Your task to perform on an android device: turn on improve location accuracy Image 0: 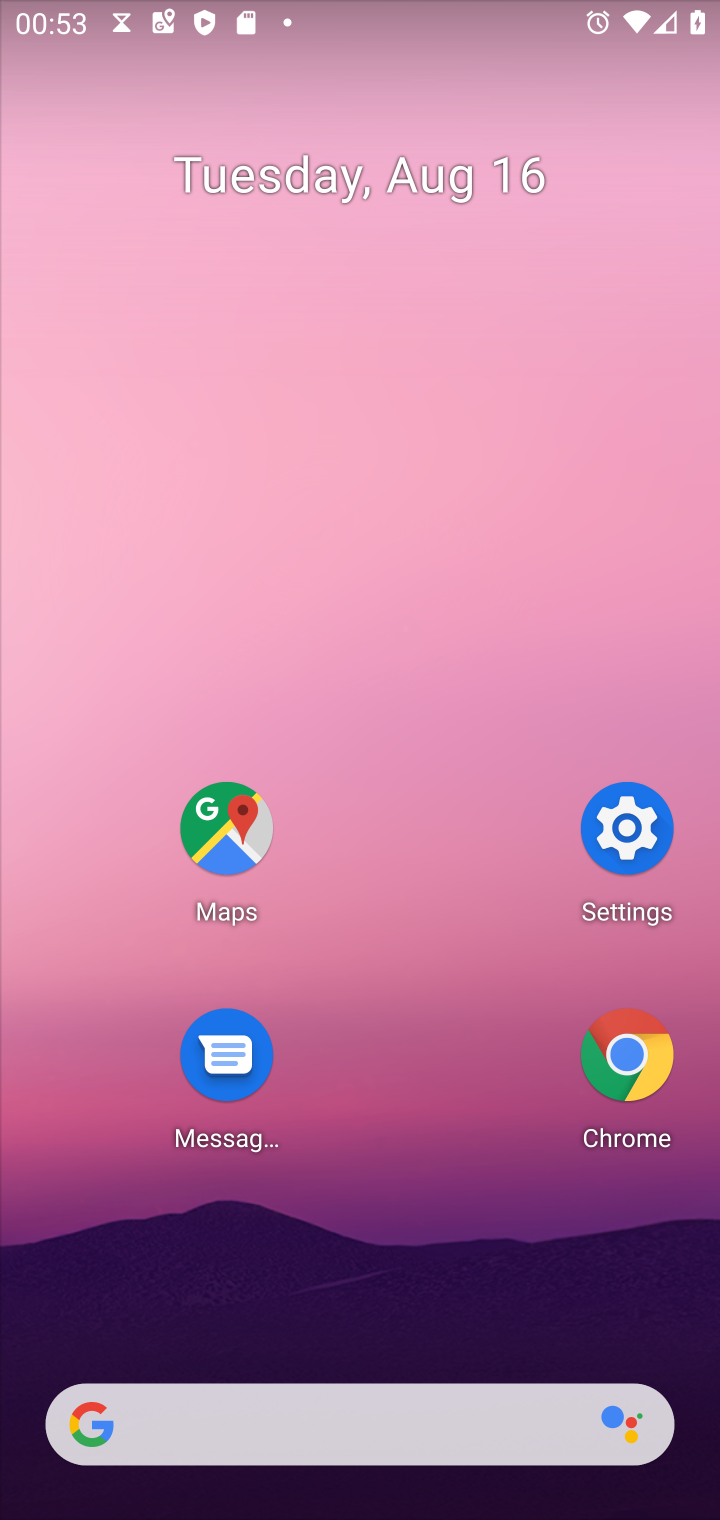
Step 0: click (630, 809)
Your task to perform on an android device: turn on improve location accuracy Image 1: 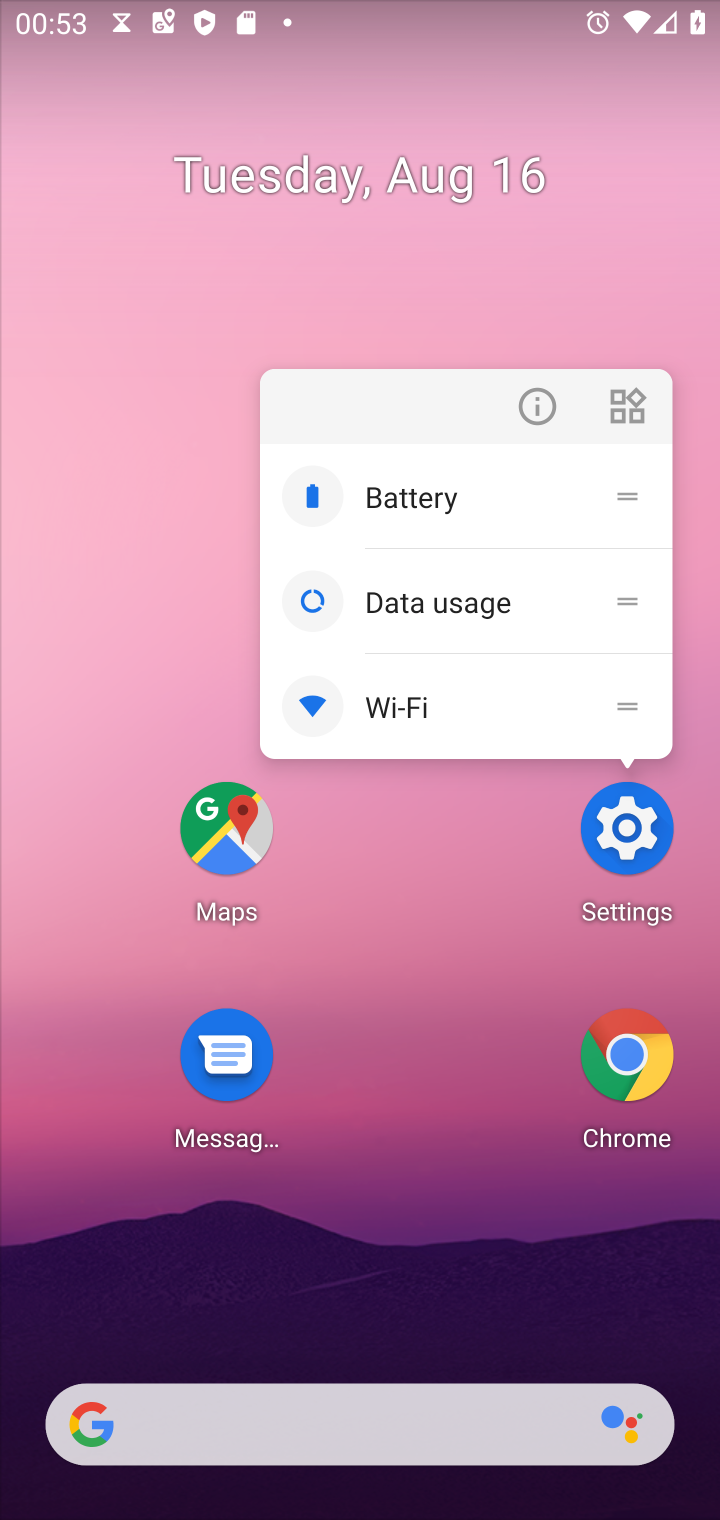
Step 1: click (626, 824)
Your task to perform on an android device: turn on improve location accuracy Image 2: 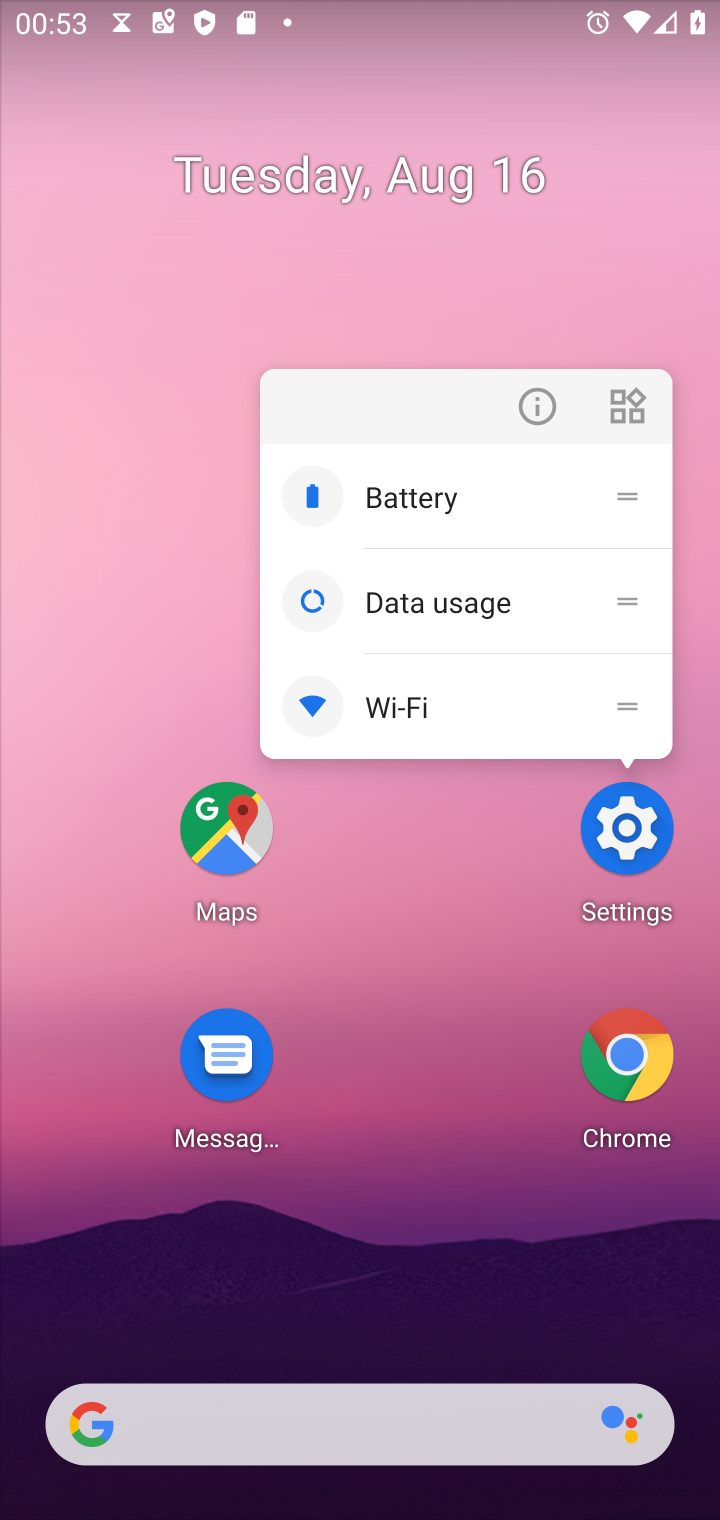
Step 2: click (624, 824)
Your task to perform on an android device: turn on improve location accuracy Image 3: 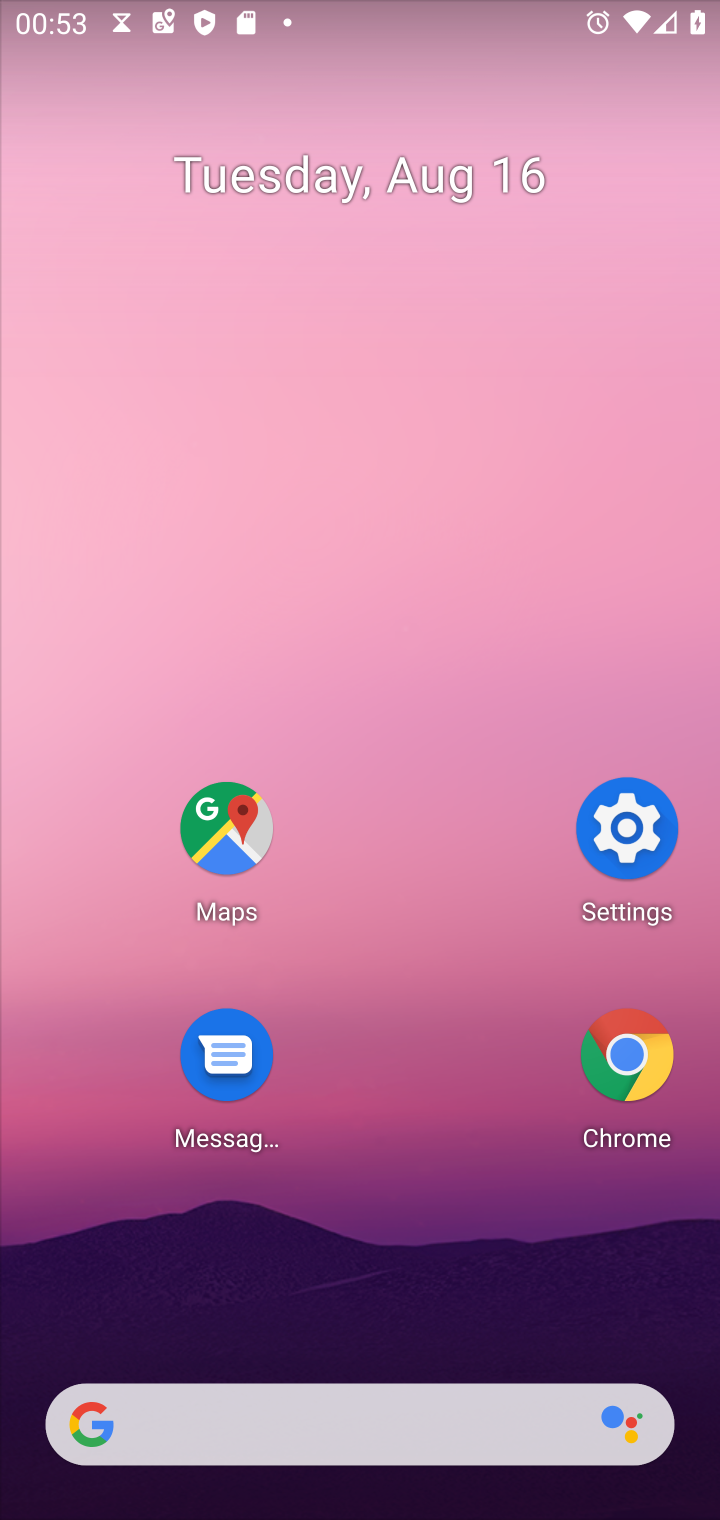
Step 3: click (621, 833)
Your task to perform on an android device: turn on improve location accuracy Image 4: 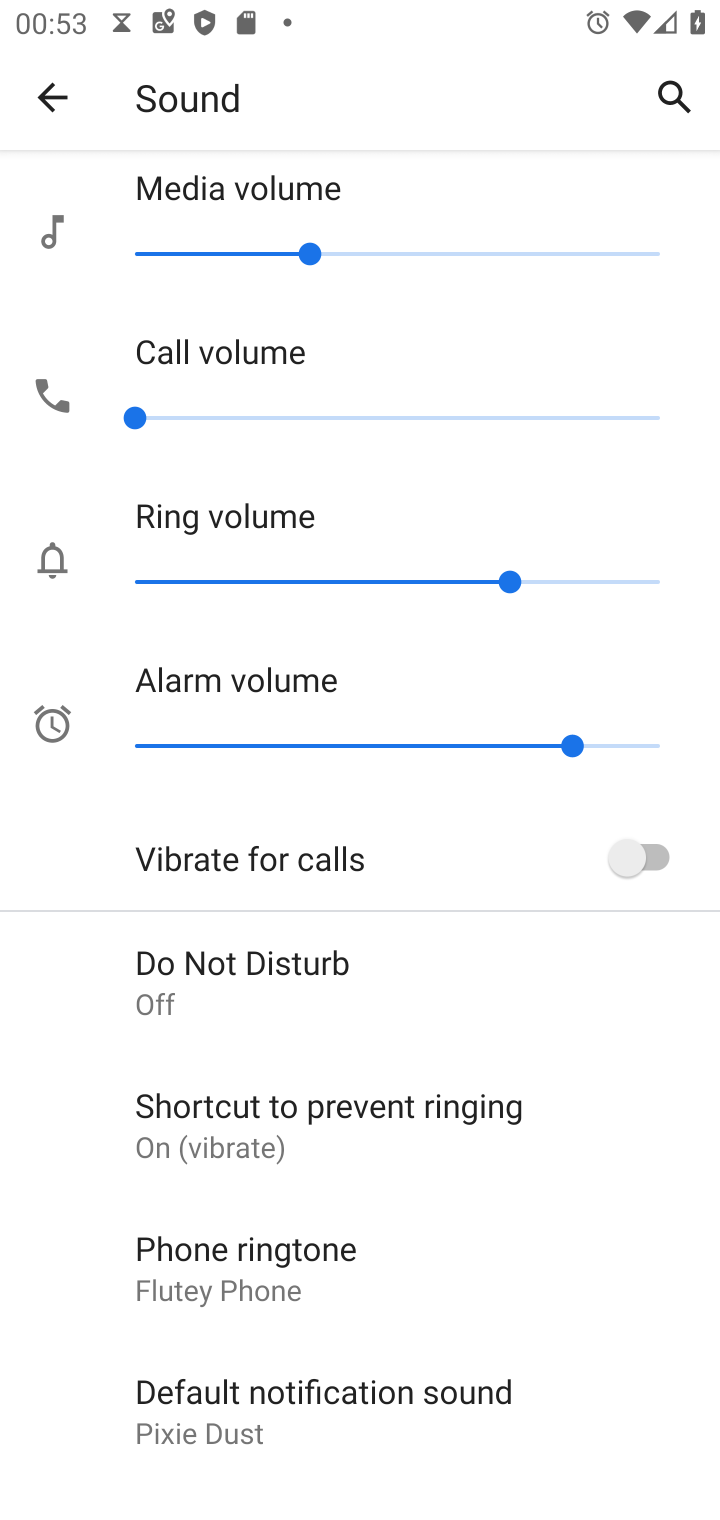
Step 4: click (48, 81)
Your task to perform on an android device: turn on improve location accuracy Image 5: 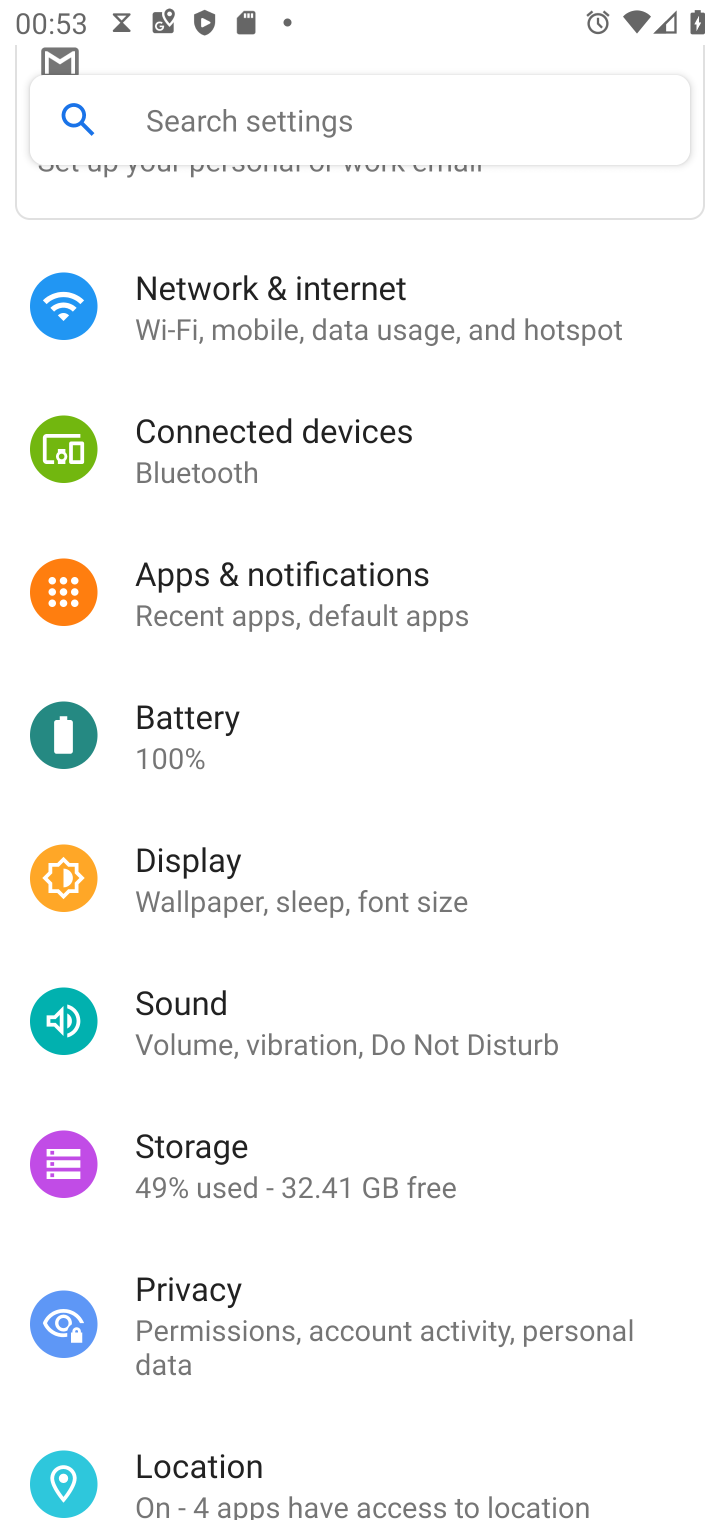
Step 5: drag from (303, 1359) to (541, 249)
Your task to perform on an android device: turn on improve location accuracy Image 6: 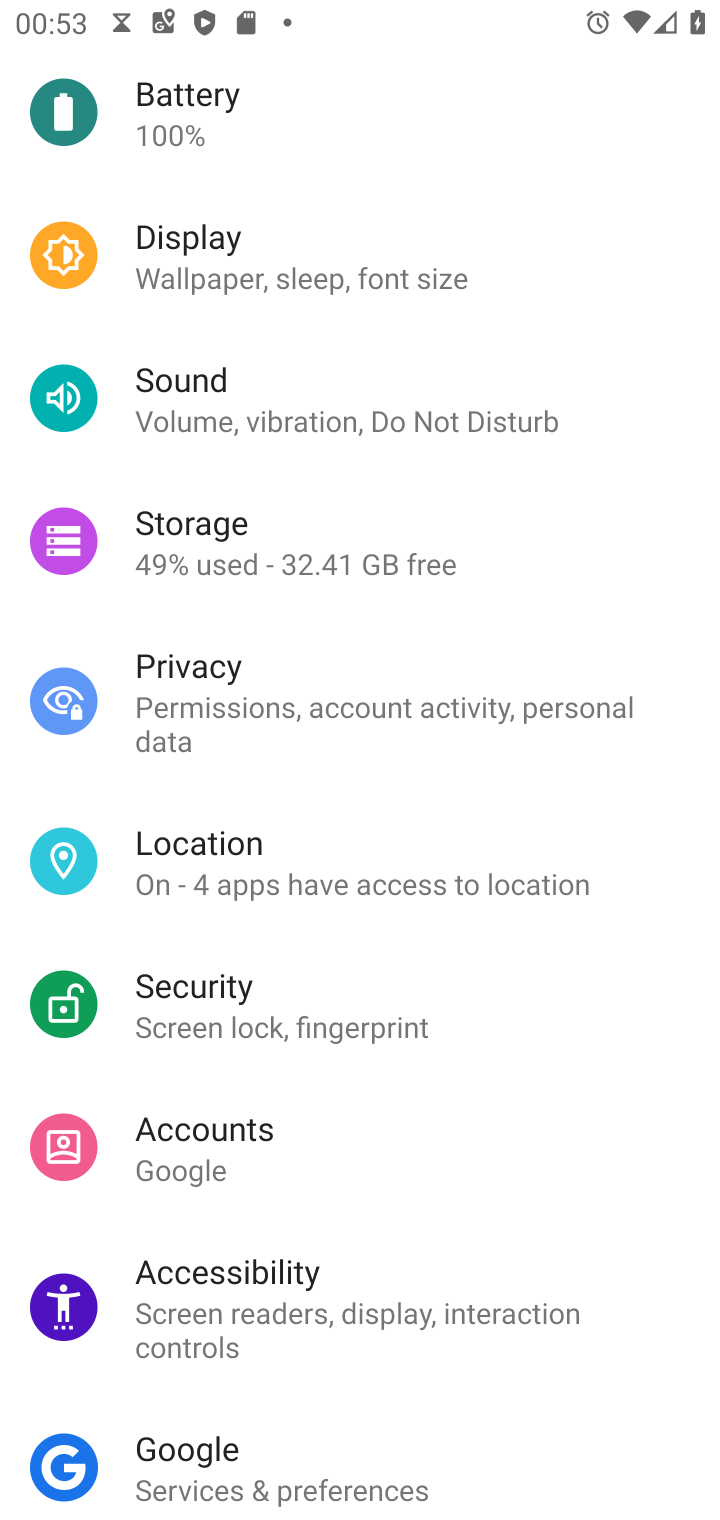
Step 6: click (247, 865)
Your task to perform on an android device: turn on improve location accuracy Image 7: 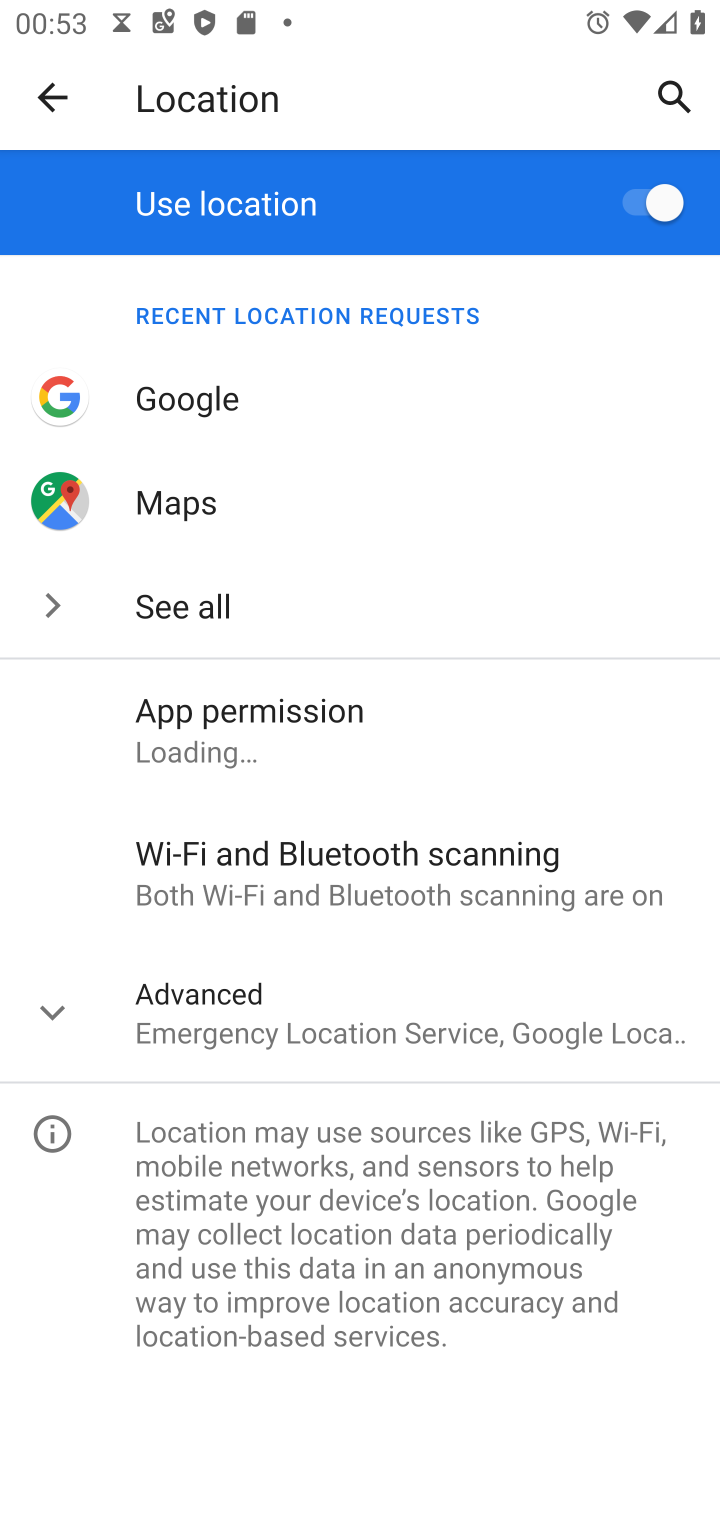
Step 7: click (220, 984)
Your task to perform on an android device: turn on improve location accuracy Image 8: 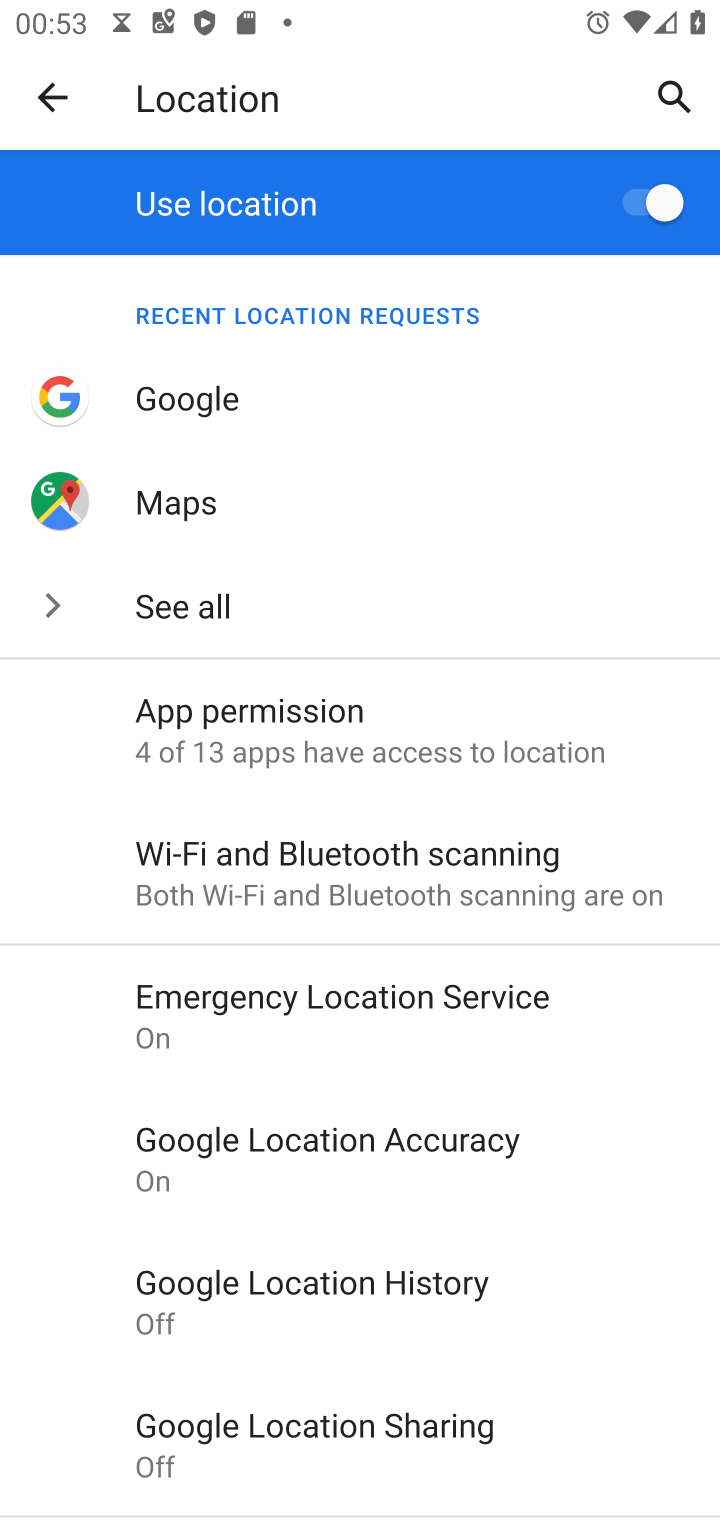
Step 8: drag from (378, 1066) to (518, 399)
Your task to perform on an android device: turn on improve location accuracy Image 9: 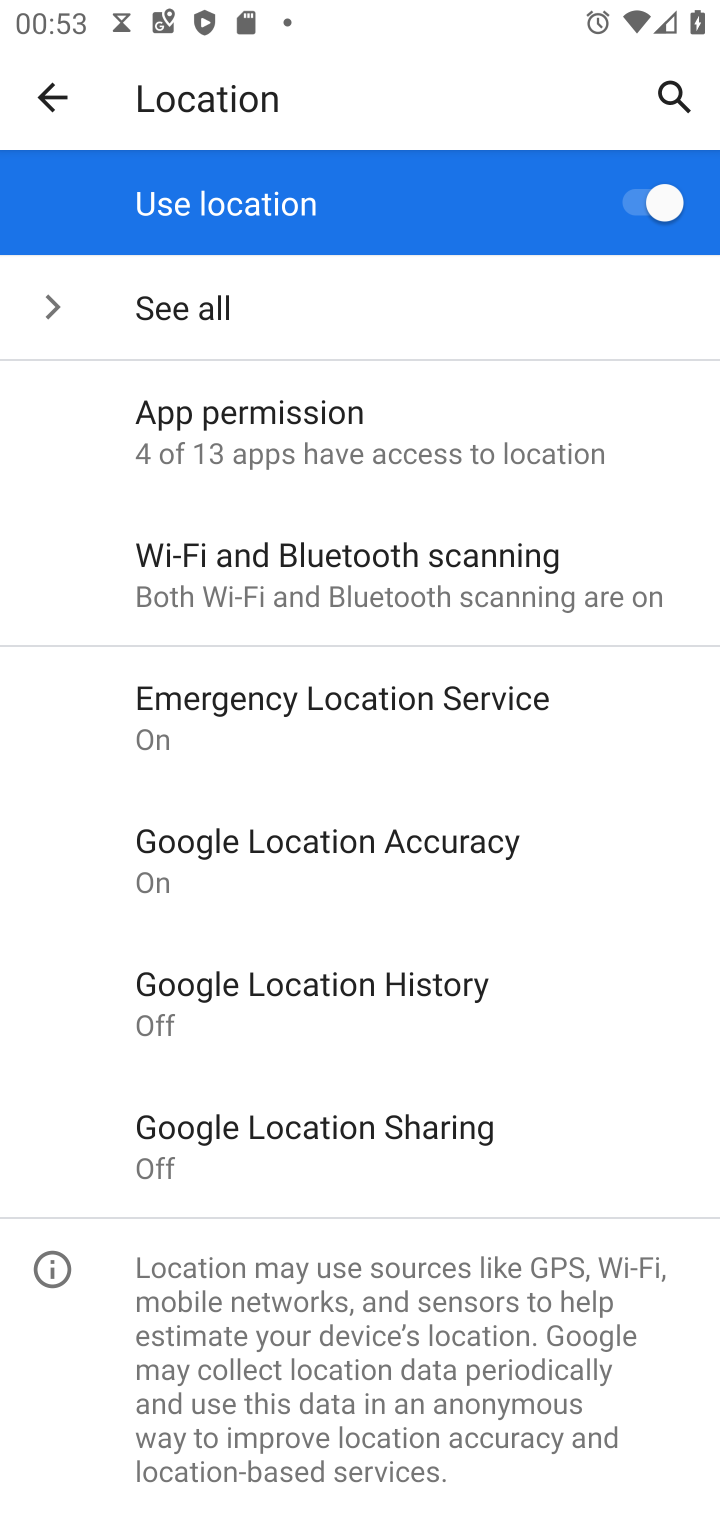
Step 9: click (443, 843)
Your task to perform on an android device: turn on improve location accuracy Image 10: 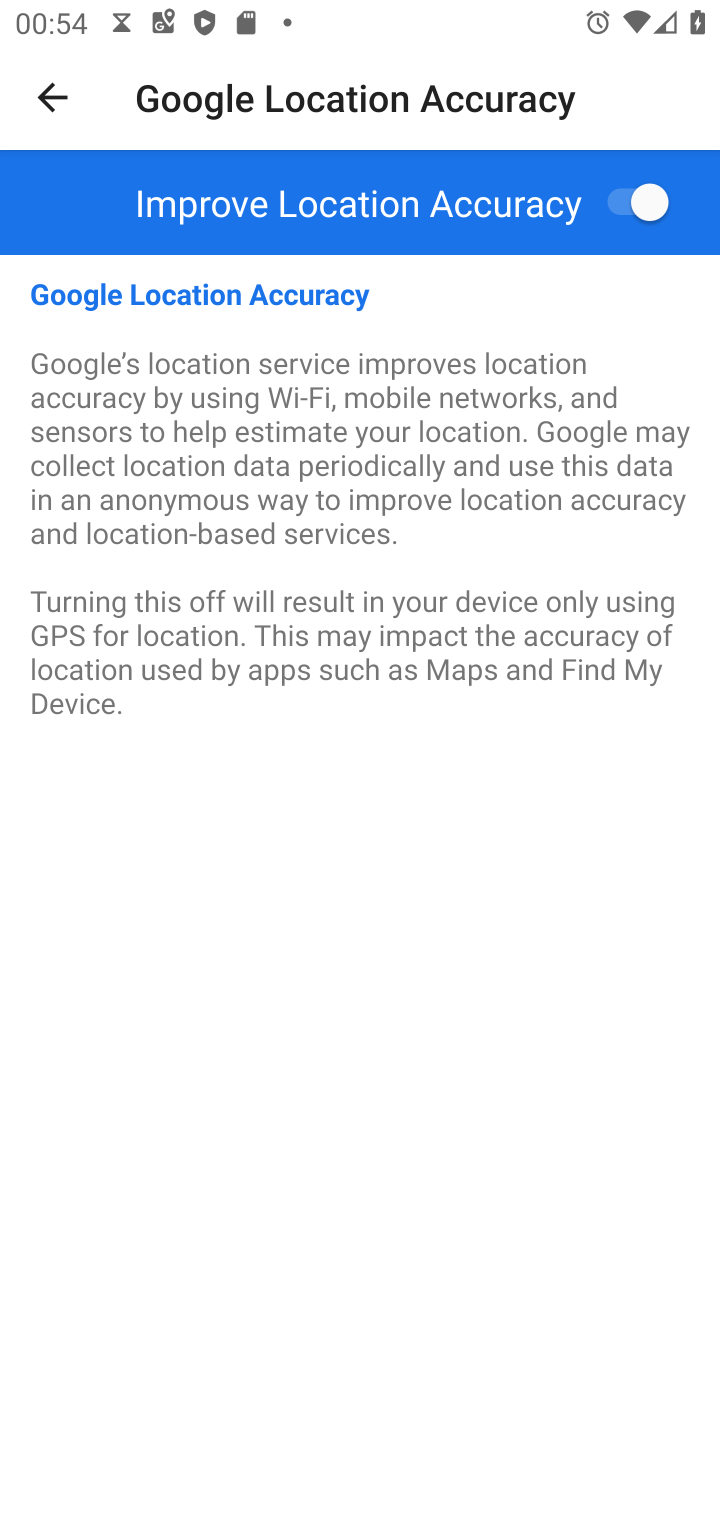
Step 10: task complete